Your task to perform on an android device: open app "ZOOM Cloud Meetings" (install if not already installed) and enter user name: "bauxite@icloud.com" and password: "dim" Image 0: 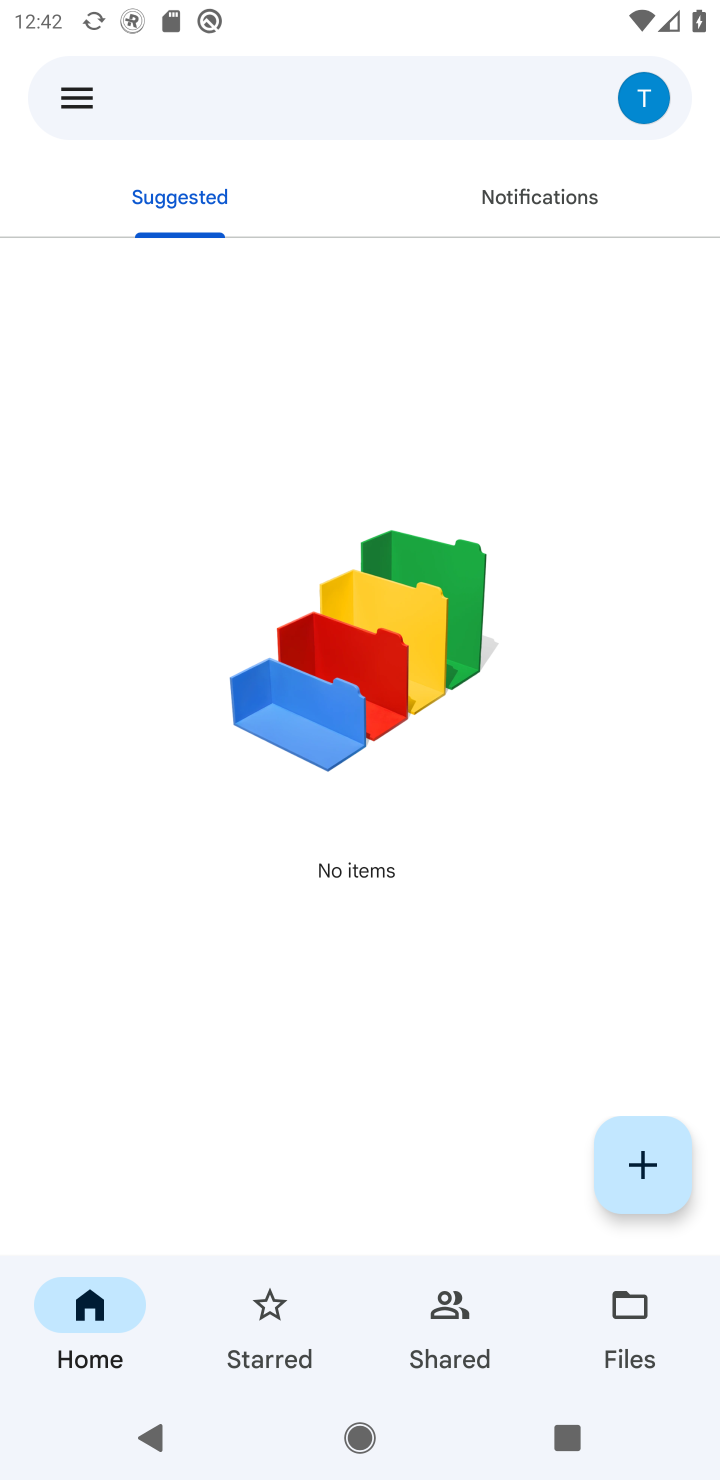
Step 0: press home button
Your task to perform on an android device: open app "ZOOM Cloud Meetings" (install if not already installed) and enter user name: "bauxite@icloud.com" and password: "dim" Image 1: 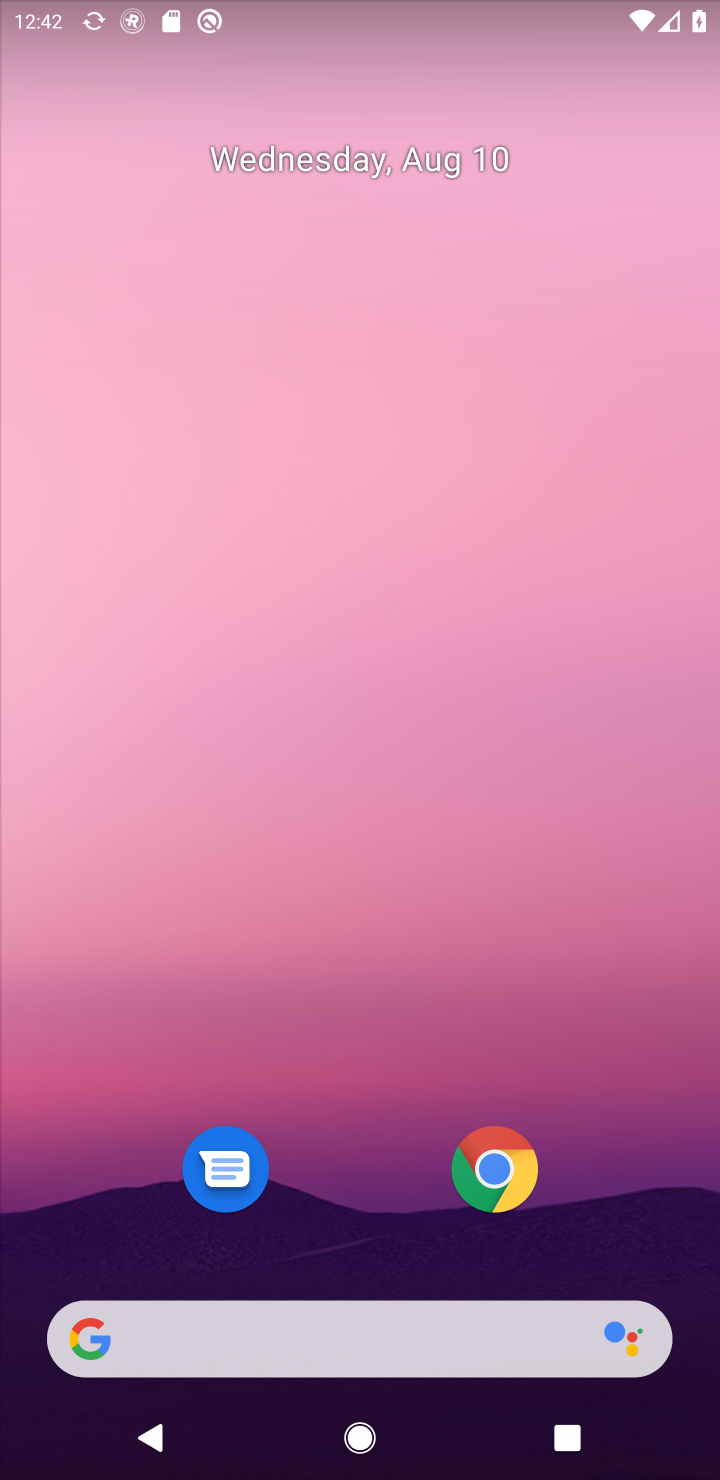
Step 1: press home button
Your task to perform on an android device: open app "ZOOM Cloud Meetings" (install if not already installed) and enter user name: "bauxite@icloud.com" and password: "dim" Image 2: 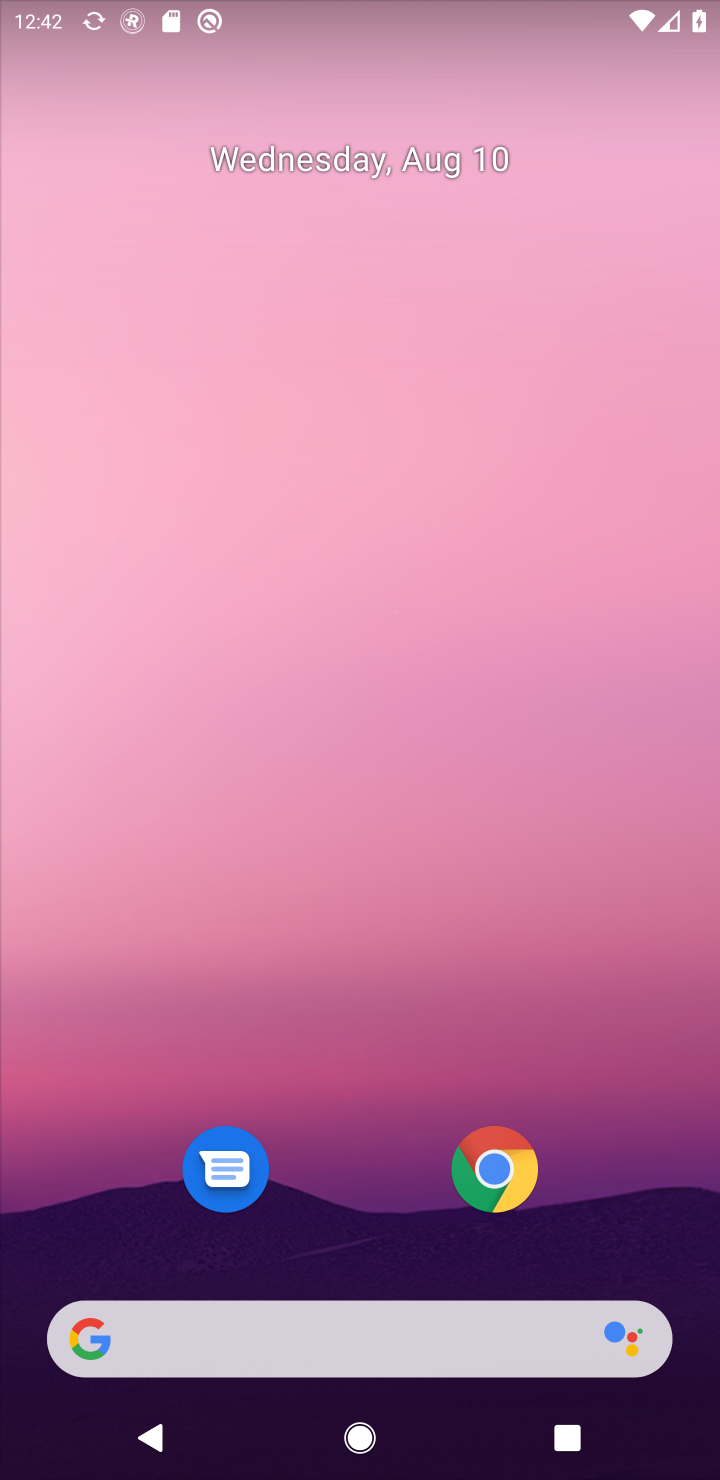
Step 2: drag from (614, 1145) to (614, 397)
Your task to perform on an android device: open app "ZOOM Cloud Meetings" (install if not already installed) and enter user name: "bauxite@icloud.com" and password: "dim" Image 3: 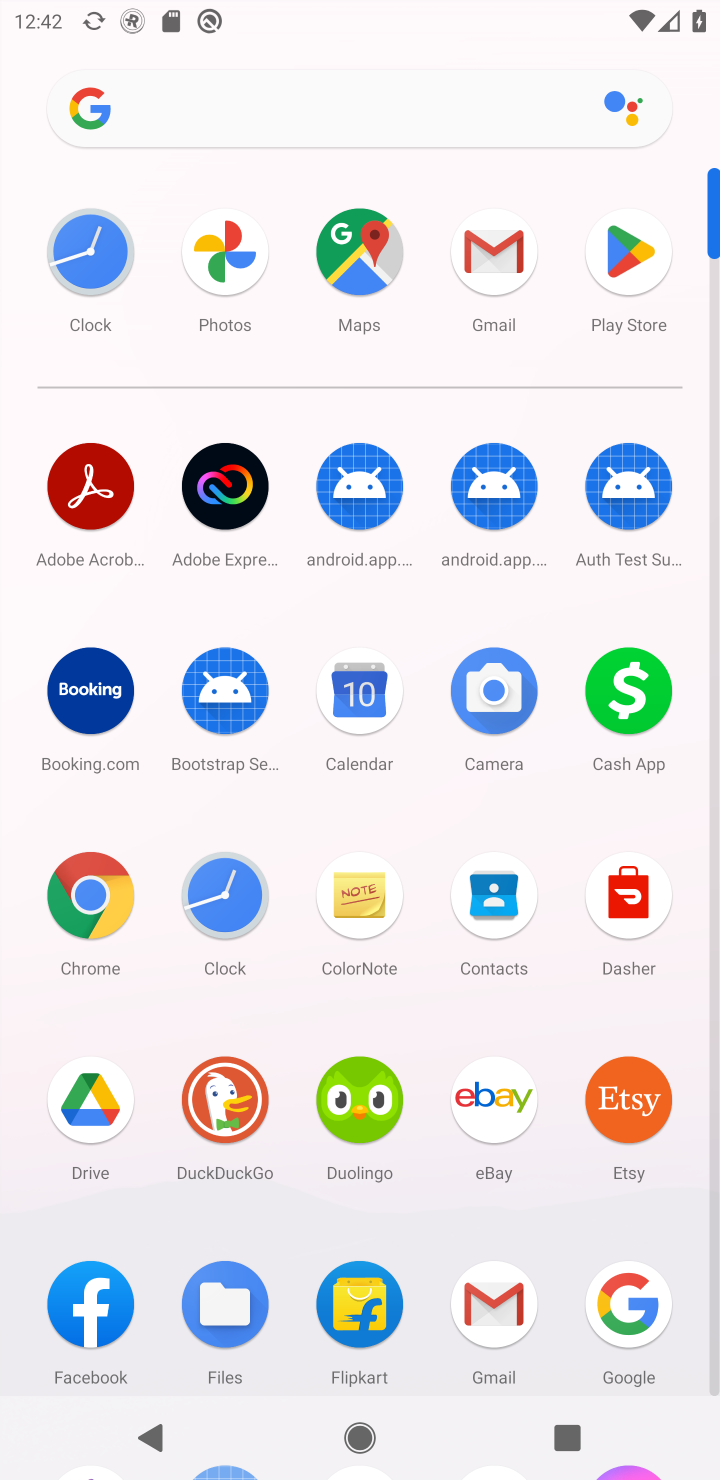
Step 3: click (642, 242)
Your task to perform on an android device: open app "ZOOM Cloud Meetings" (install if not already installed) and enter user name: "bauxite@icloud.com" and password: "dim" Image 4: 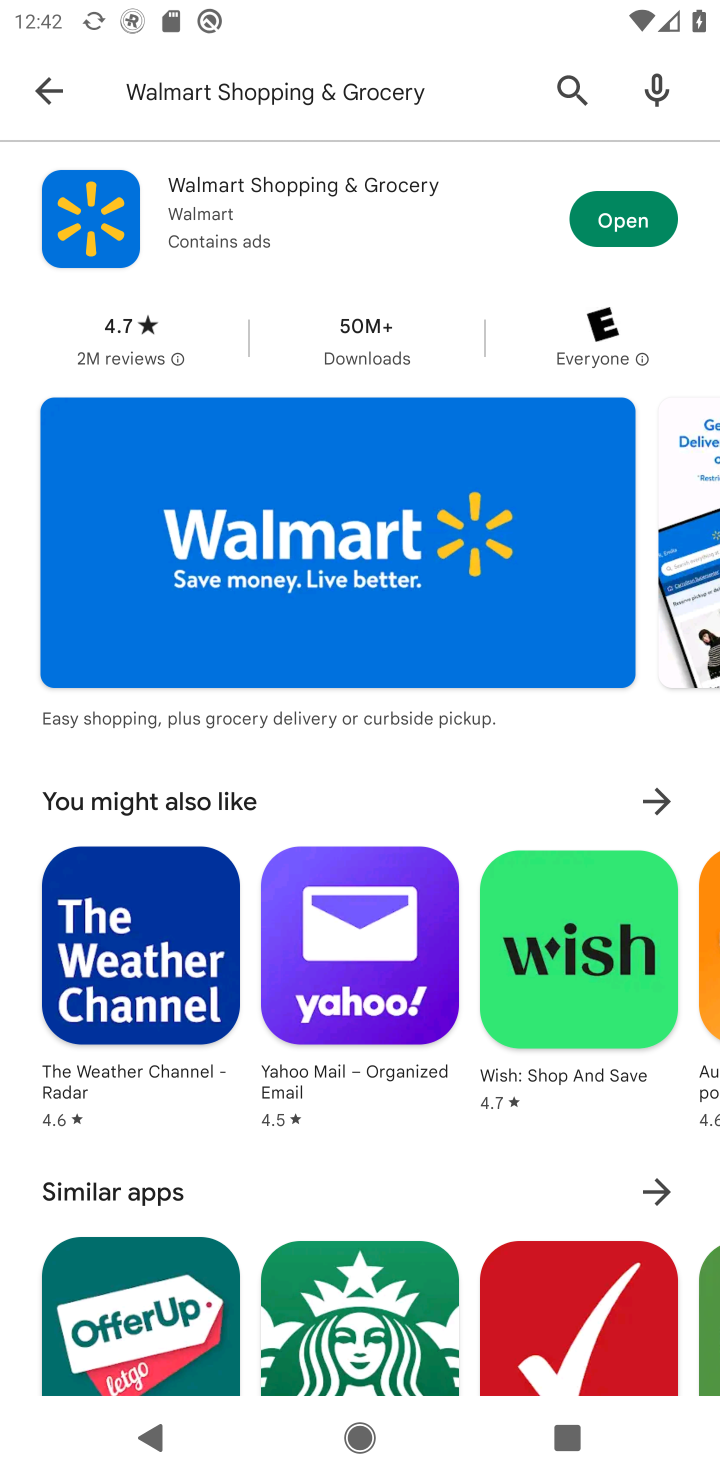
Step 4: click (552, 80)
Your task to perform on an android device: open app "ZOOM Cloud Meetings" (install if not already installed) and enter user name: "bauxite@icloud.com" and password: "dim" Image 5: 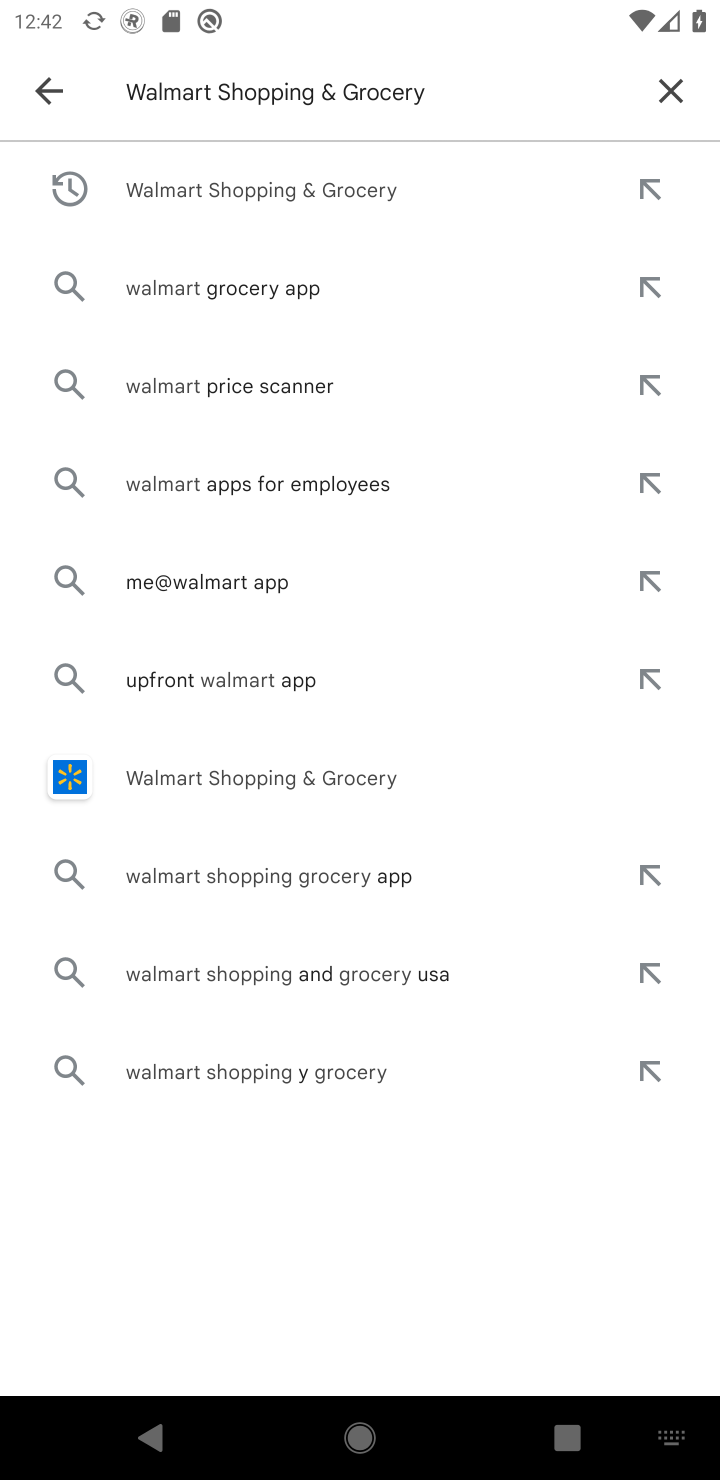
Step 5: click (673, 86)
Your task to perform on an android device: open app "ZOOM Cloud Meetings" (install if not already installed) and enter user name: "bauxite@icloud.com" and password: "dim" Image 6: 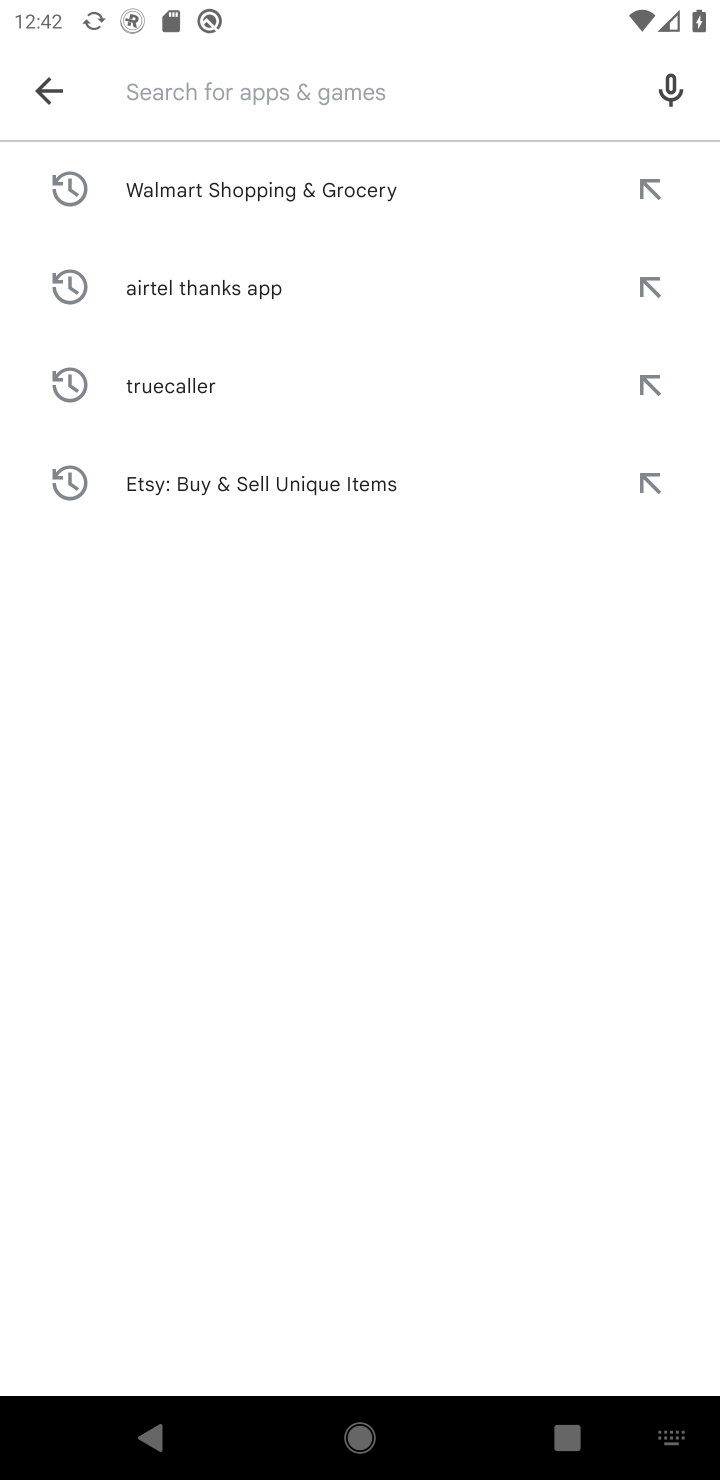
Step 6: press enter
Your task to perform on an android device: open app "ZOOM Cloud Meetings" (install if not already installed) and enter user name: "bauxite@icloud.com" and password: "dim" Image 7: 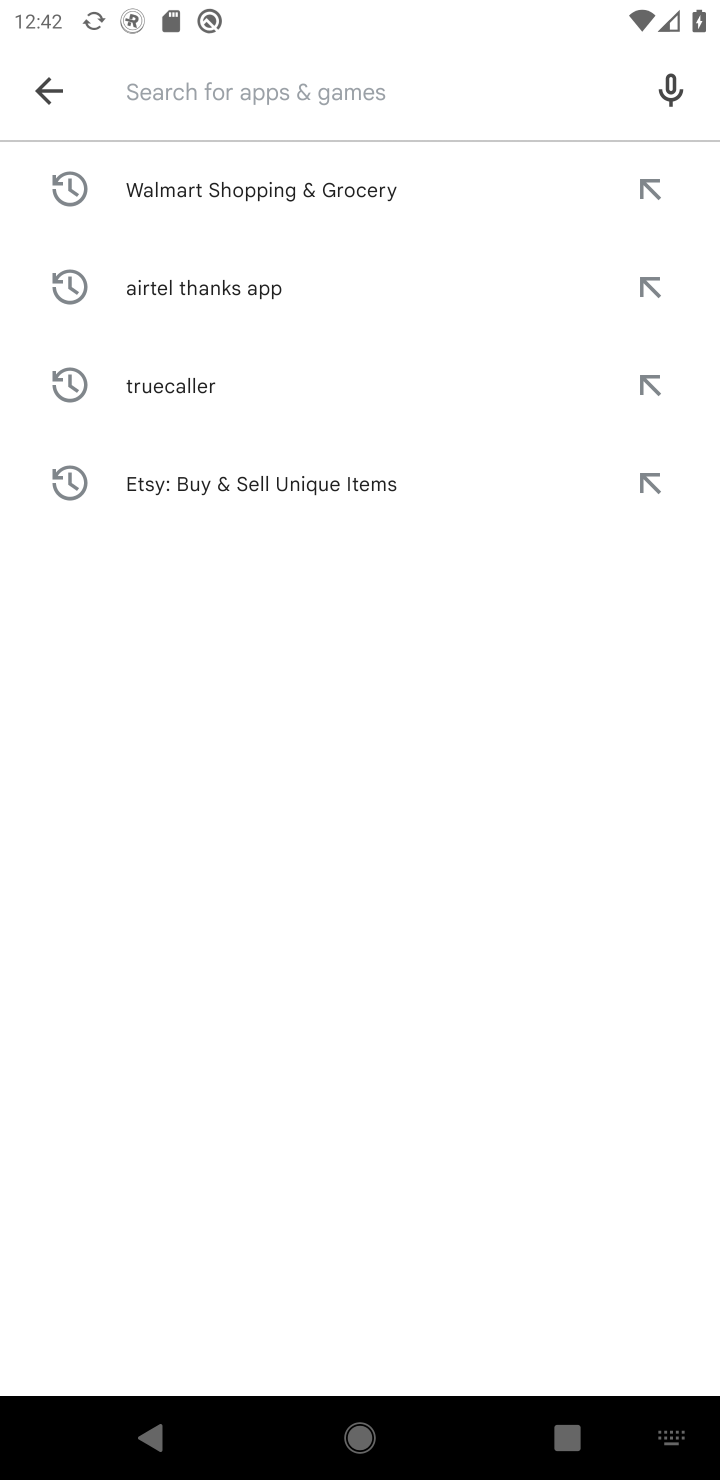
Step 7: type "ZOOM Cloud Meetings"
Your task to perform on an android device: open app "ZOOM Cloud Meetings" (install if not already installed) and enter user name: "bauxite@icloud.com" and password: "dim" Image 8: 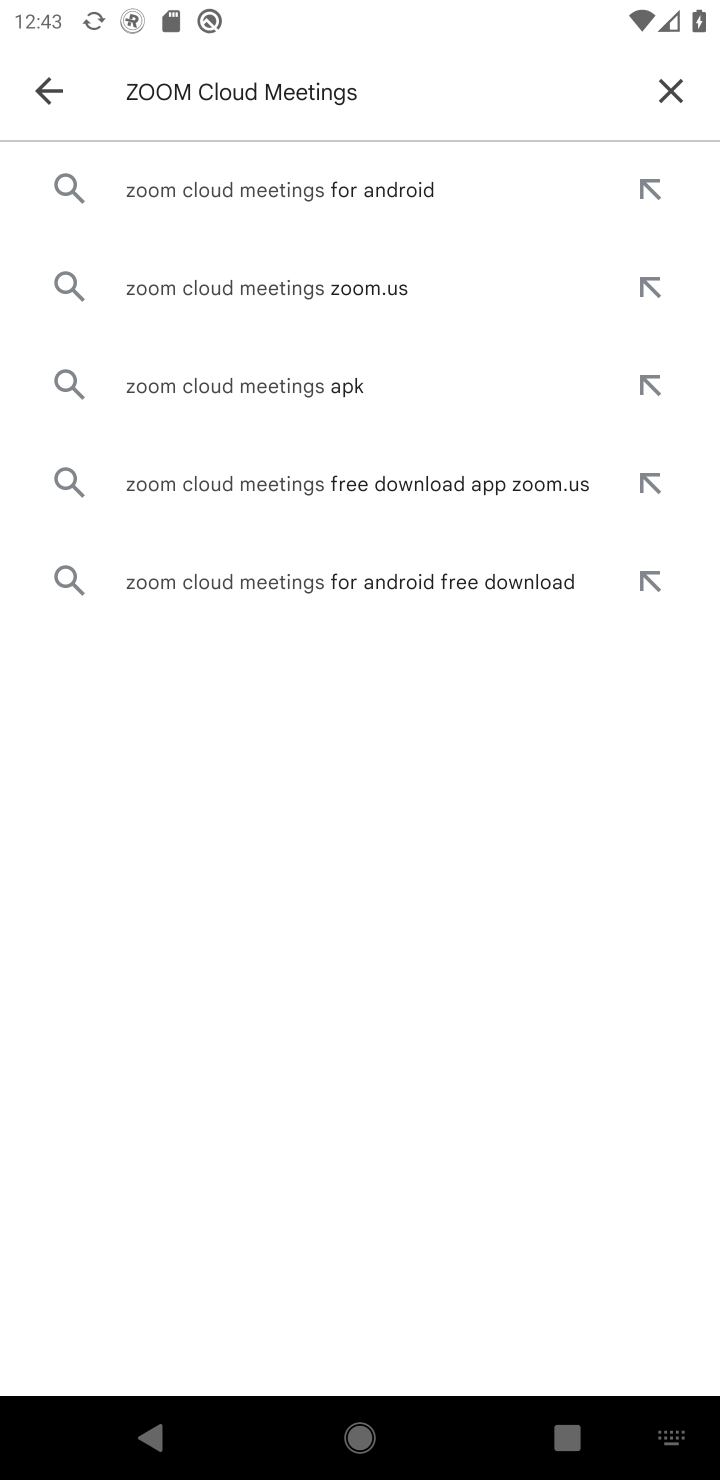
Step 8: click (383, 192)
Your task to perform on an android device: open app "ZOOM Cloud Meetings" (install if not already installed) and enter user name: "bauxite@icloud.com" and password: "dim" Image 9: 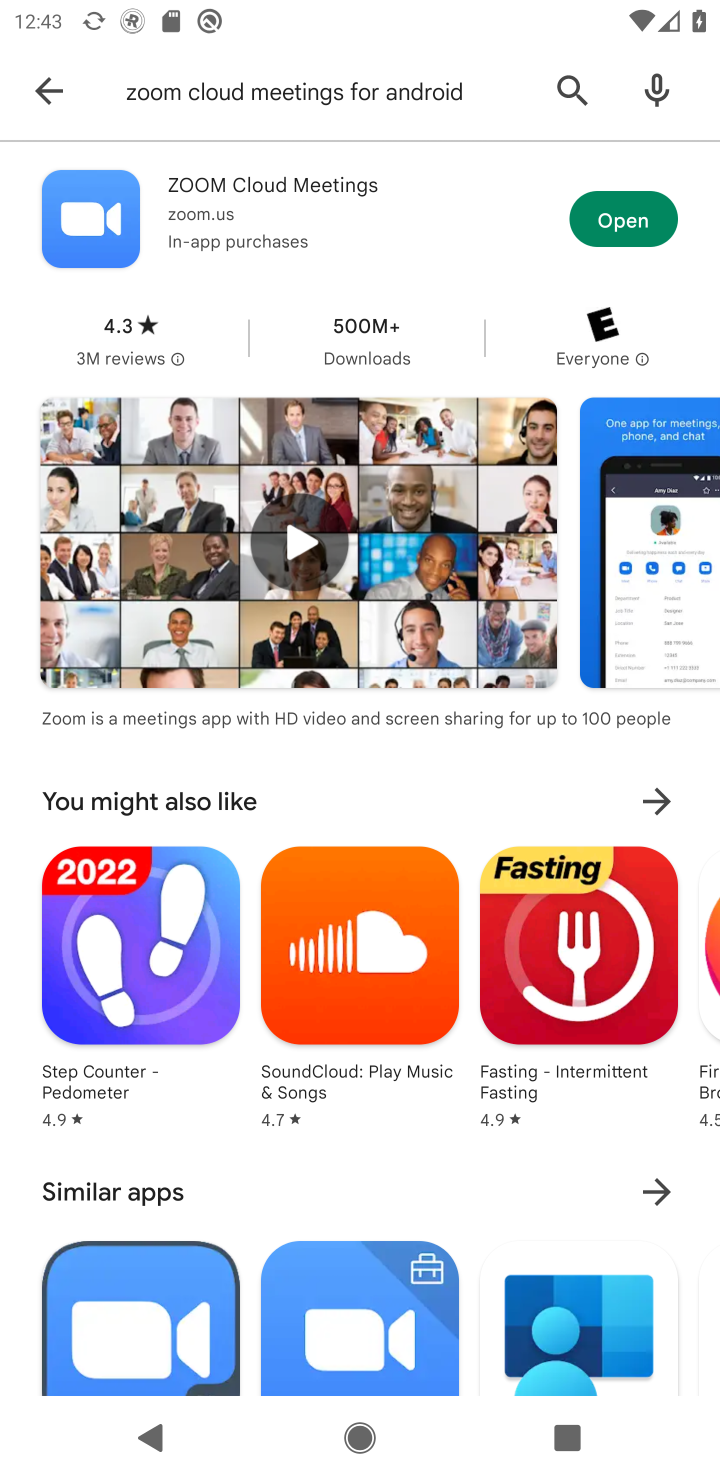
Step 9: click (623, 232)
Your task to perform on an android device: open app "ZOOM Cloud Meetings" (install if not already installed) and enter user name: "bauxite@icloud.com" and password: "dim" Image 10: 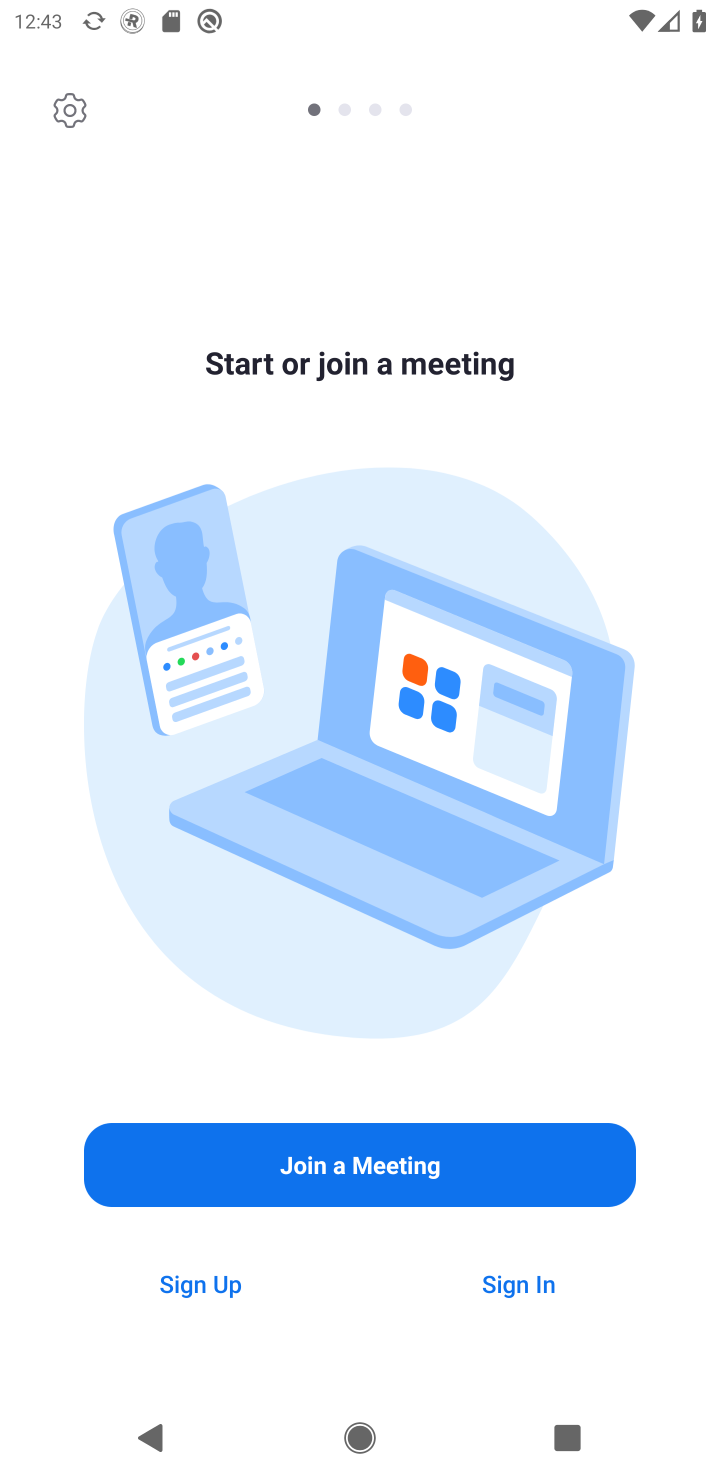
Step 10: click (509, 1277)
Your task to perform on an android device: open app "ZOOM Cloud Meetings" (install if not already installed) and enter user name: "bauxite@icloud.com" and password: "dim" Image 11: 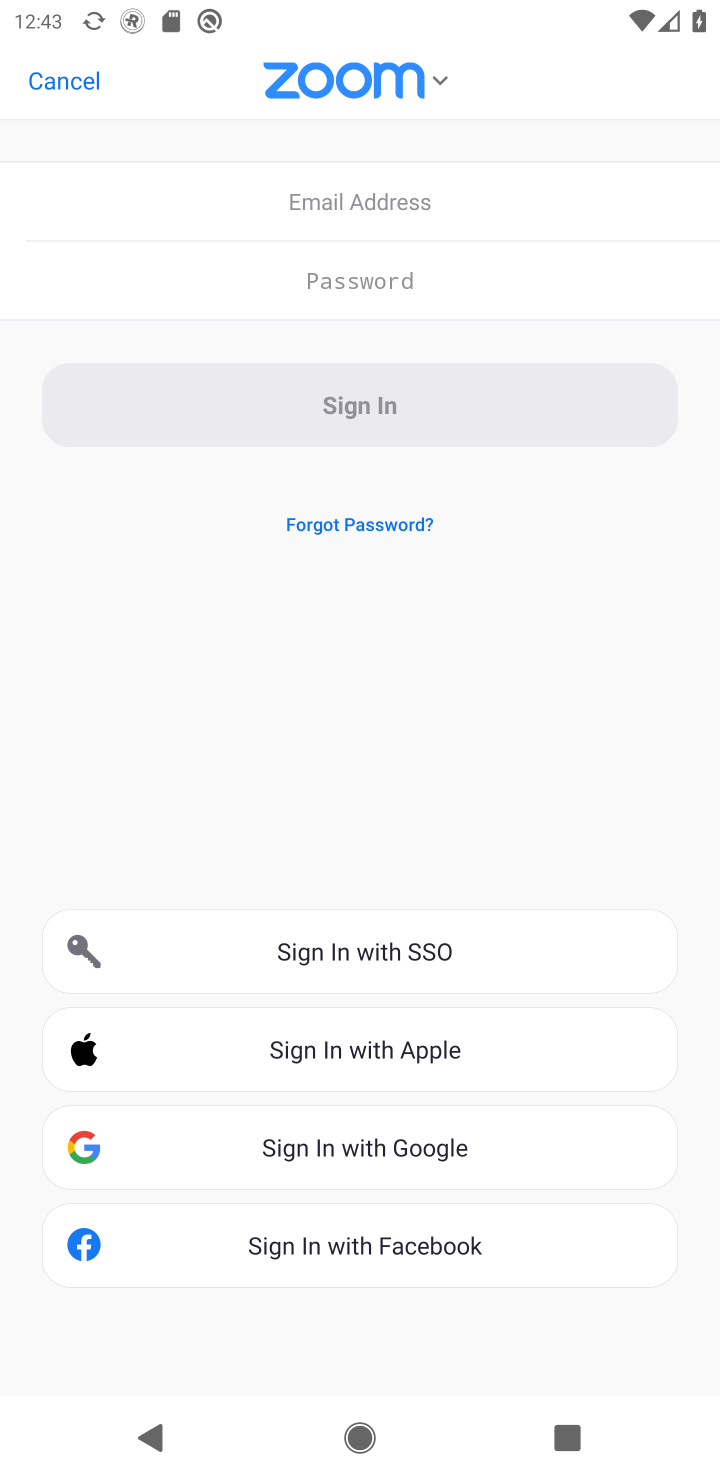
Step 11: click (463, 211)
Your task to perform on an android device: open app "ZOOM Cloud Meetings" (install if not already installed) and enter user name: "bauxite@icloud.com" and password: "dim" Image 12: 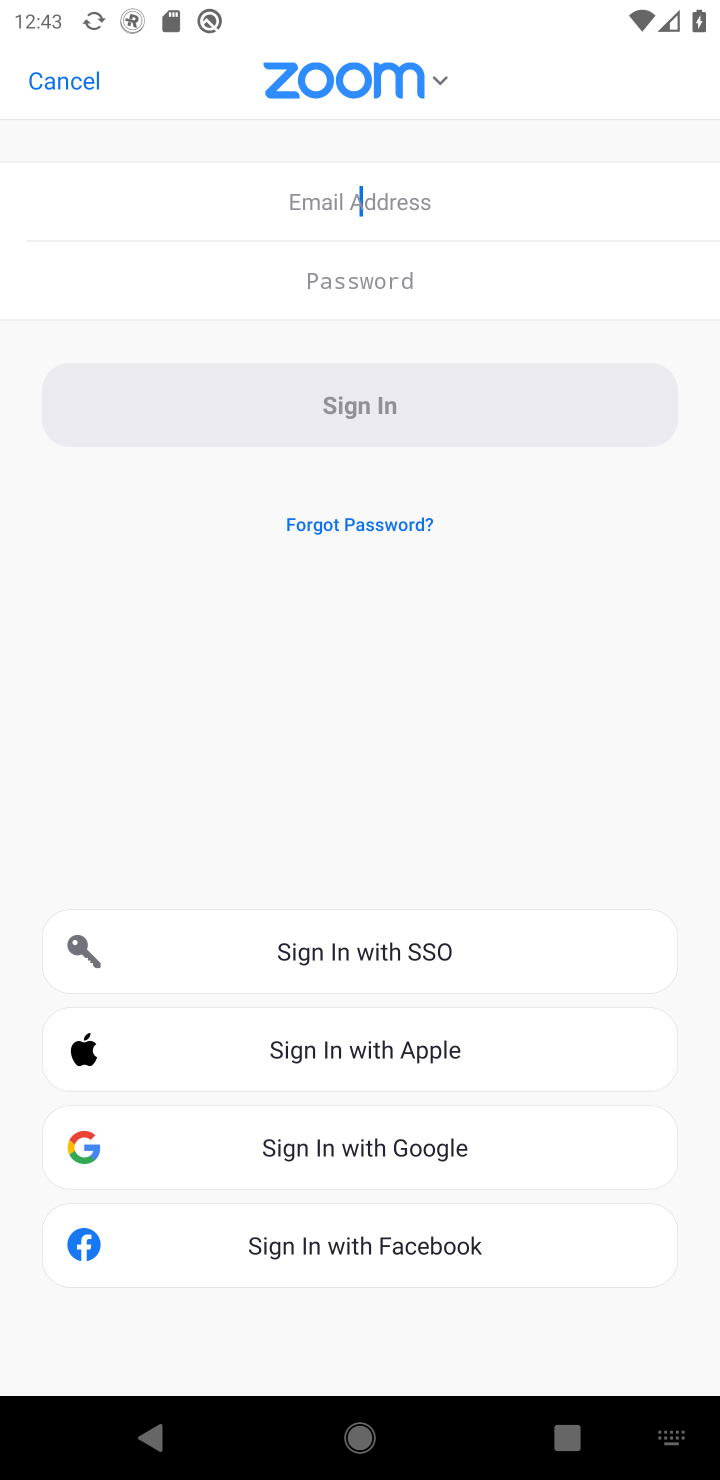
Step 12: type "bauxite@icloud.com"
Your task to perform on an android device: open app "ZOOM Cloud Meetings" (install if not already installed) and enter user name: "bauxite@icloud.com" and password: "dim" Image 13: 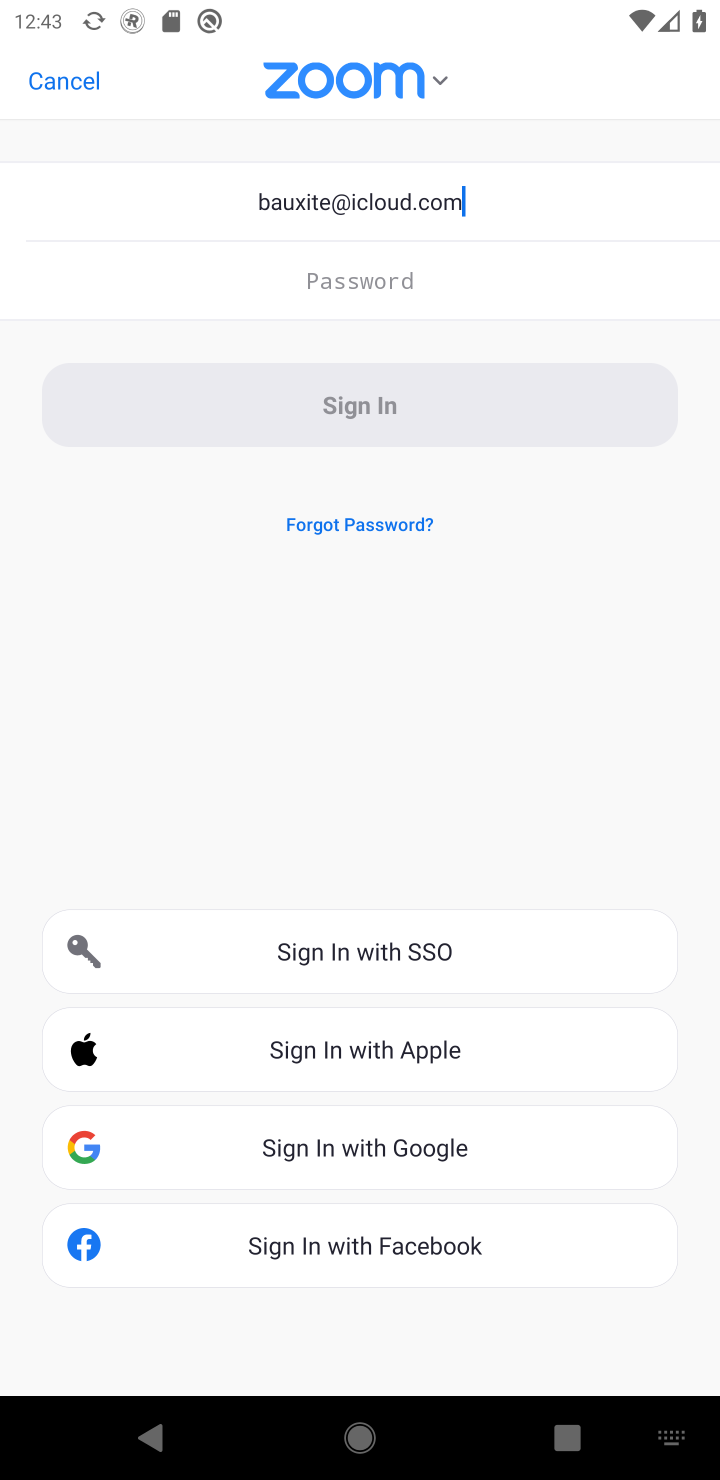
Step 13: press enter
Your task to perform on an android device: open app "ZOOM Cloud Meetings" (install if not already installed) and enter user name: "bauxite@icloud.com" and password: "dim" Image 14: 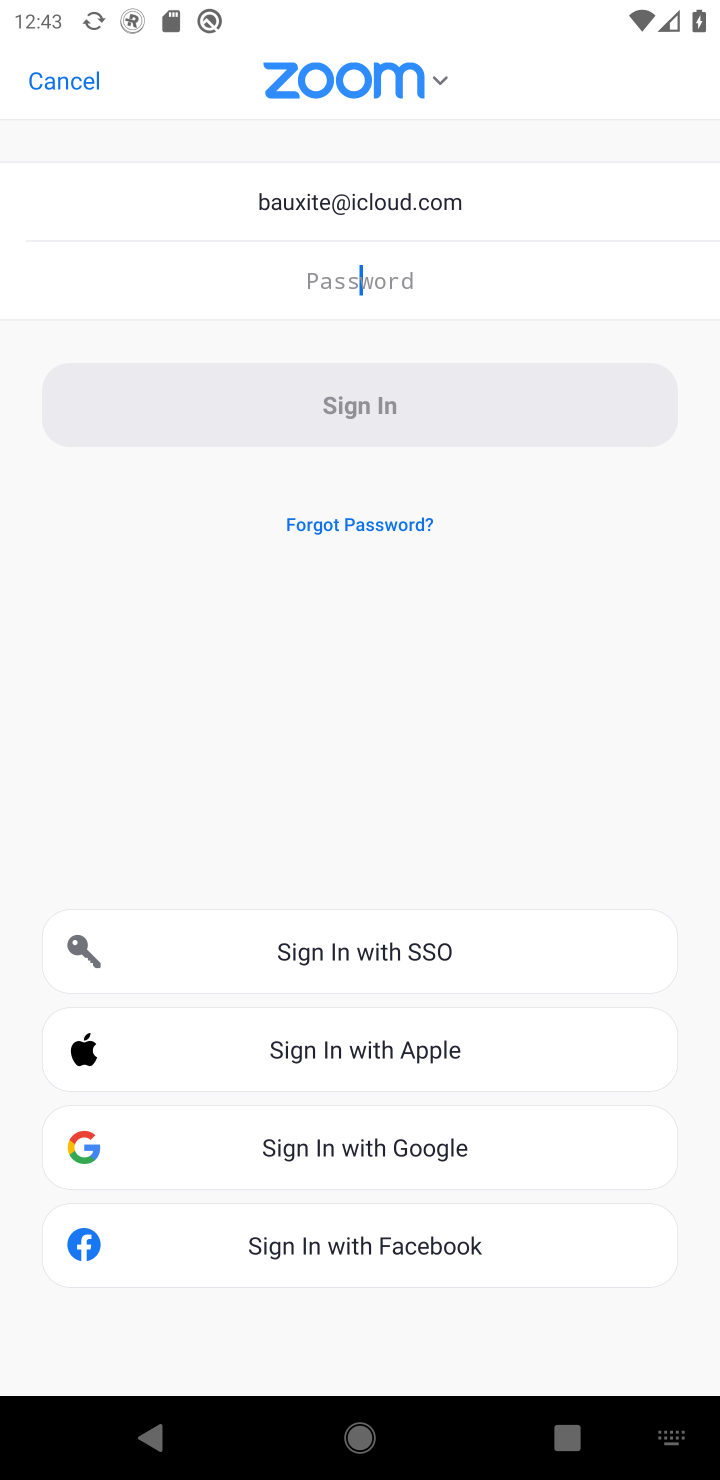
Step 14: type "dim"
Your task to perform on an android device: open app "ZOOM Cloud Meetings" (install if not already installed) and enter user name: "bauxite@icloud.com" and password: "dim" Image 15: 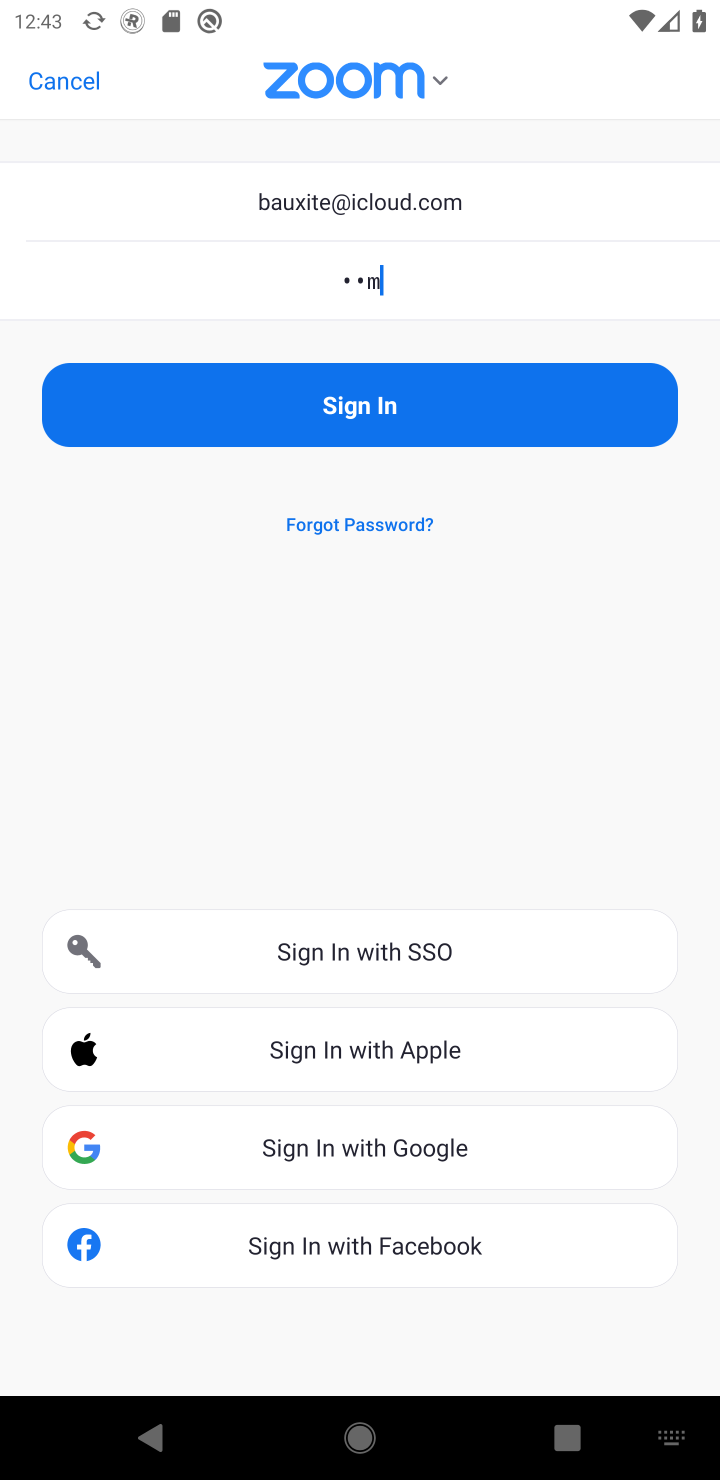
Step 15: press enter
Your task to perform on an android device: open app "ZOOM Cloud Meetings" (install if not already installed) and enter user name: "bauxite@icloud.com" and password: "dim" Image 16: 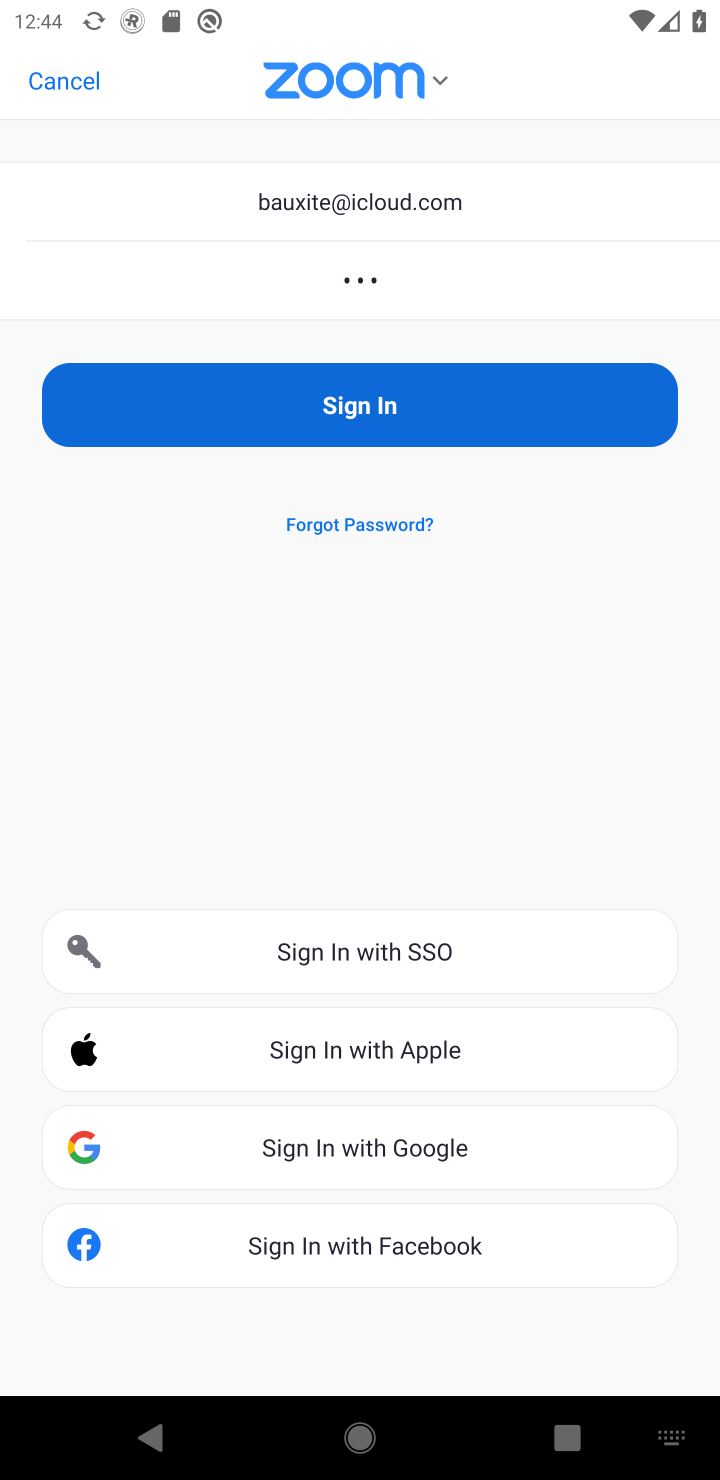
Step 16: task complete